Your task to perform on an android device: change text size in settings app Image 0: 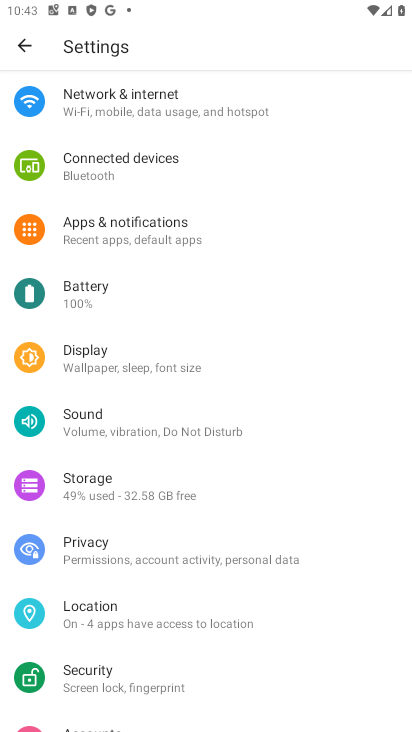
Step 0: press home button
Your task to perform on an android device: change text size in settings app Image 1: 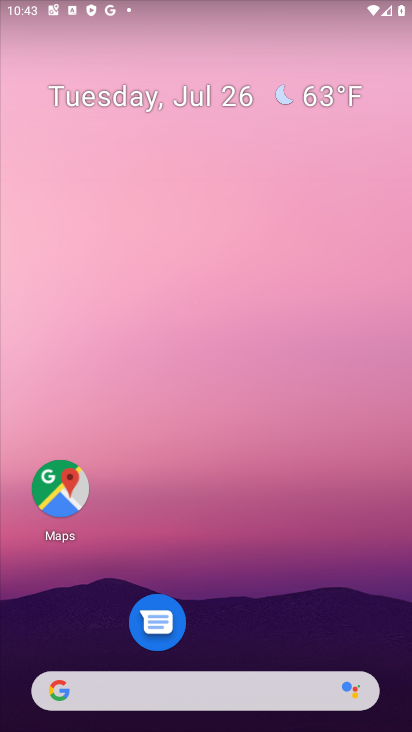
Step 1: drag from (340, 686) to (69, 1)
Your task to perform on an android device: change text size in settings app Image 2: 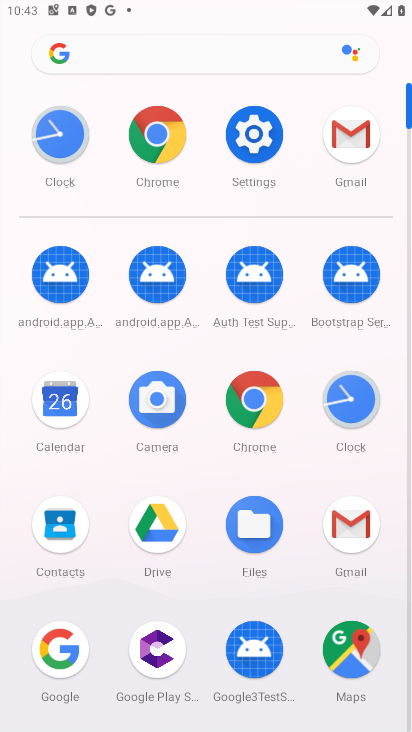
Step 2: click (267, 130)
Your task to perform on an android device: change text size in settings app Image 3: 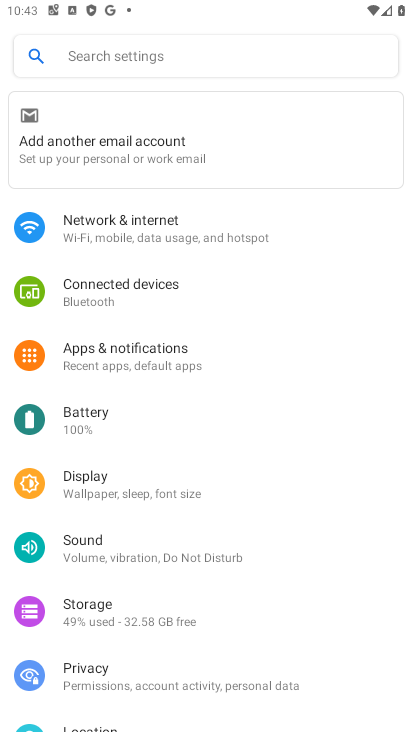
Step 3: click (142, 493)
Your task to perform on an android device: change text size in settings app Image 4: 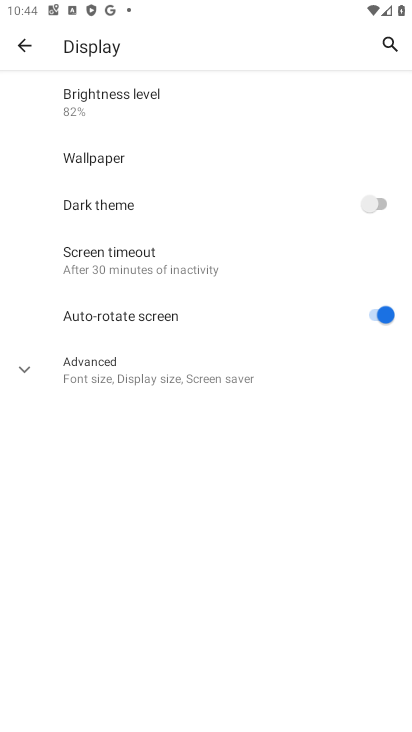
Step 4: click (129, 375)
Your task to perform on an android device: change text size in settings app Image 5: 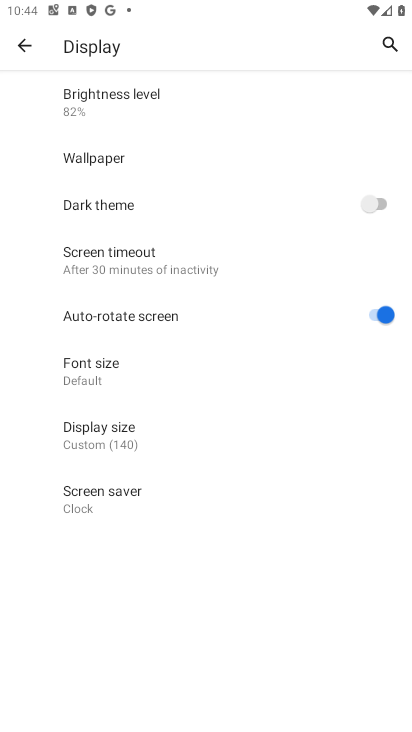
Step 5: click (89, 381)
Your task to perform on an android device: change text size in settings app Image 6: 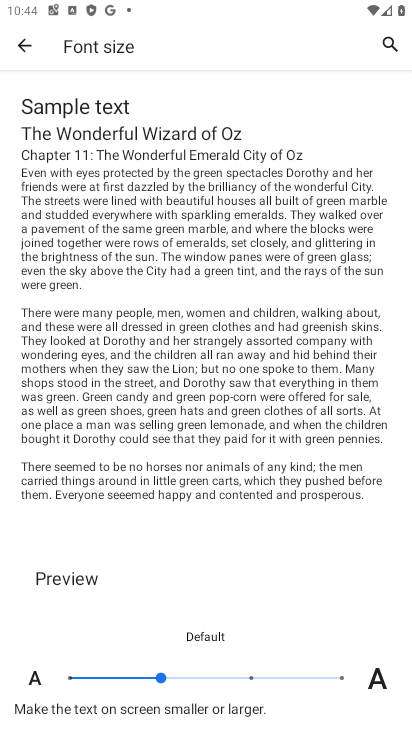
Step 6: click (224, 666)
Your task to perform on an android device: change text size in settings app Image 7: 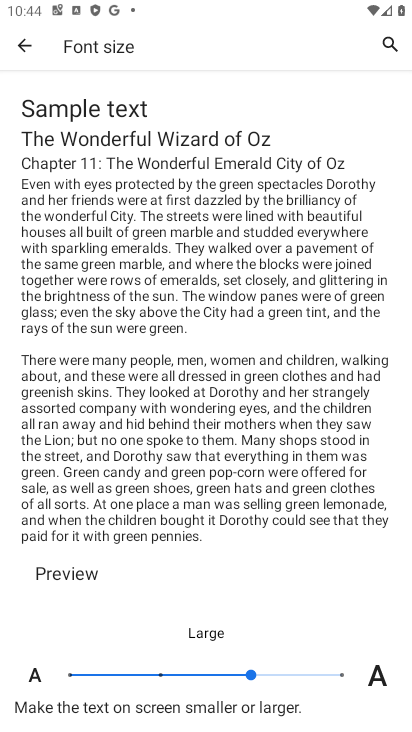
Step 7: task complete